Your task to perform on an android device: open sync settings in chrome Image 0: 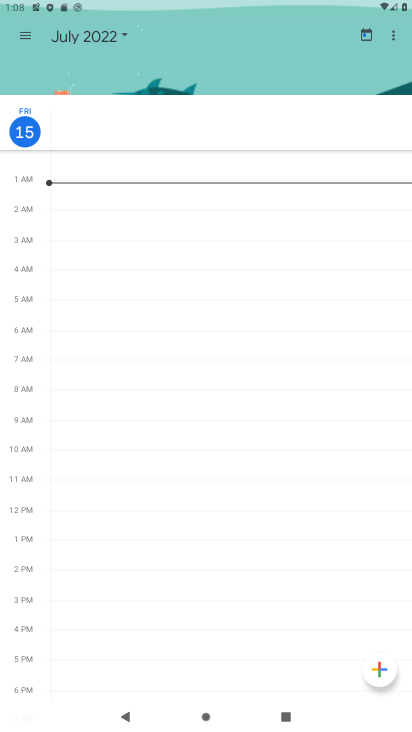
Step 0: press home button
Your task to perform on an android device: open sync settings in chrome Image 1: 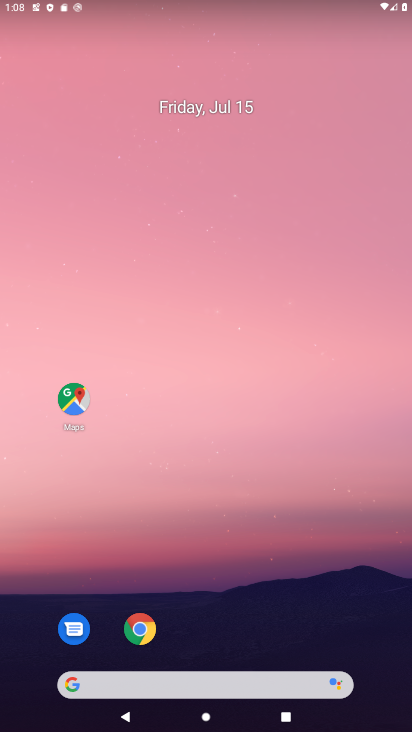
Step 1: drag from (232, 291) to (223, 92)
Your task to perform on an android device: open sync settings in chrome Image 2: 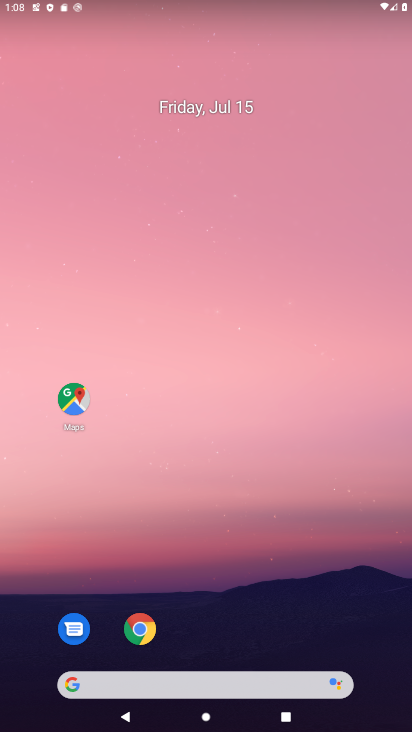
Step 2: drag from (238, 122) to (248, 30)
Your task to perform on an android device: open sync settings in chrome Image 3: 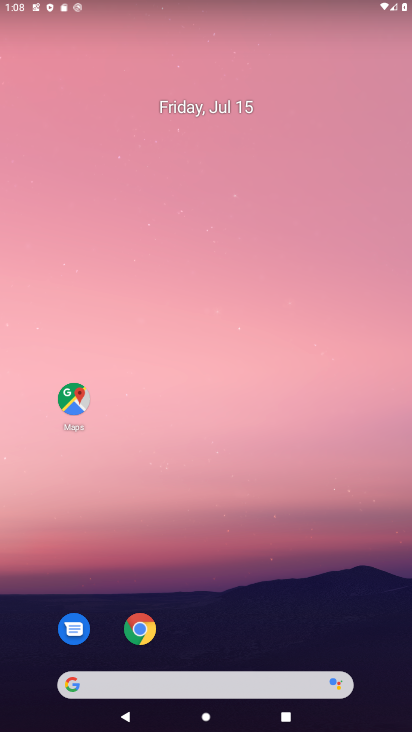
Step 3: drag from (302, 562) to (280, 2)
Your task to perform on an android device: open sync settings in chrome Image 4: 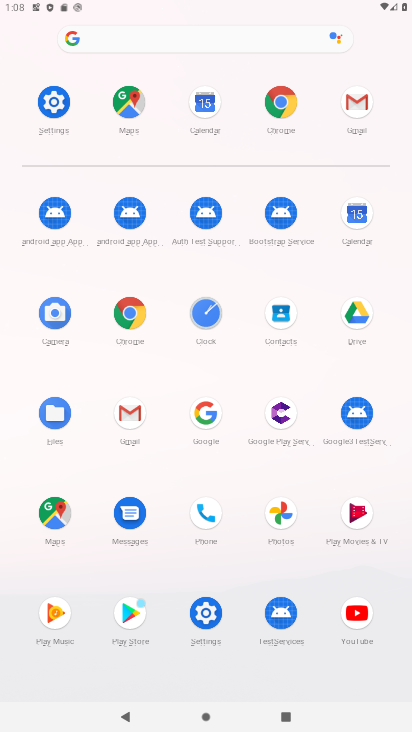
Step 4: click (117, 309)
Your task to perform on an android device: open sync settings in chrome Image 5: 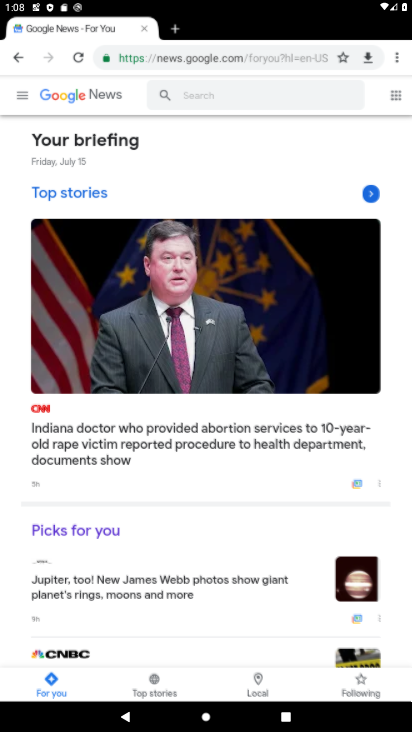
Step 5: drag from (396, 57) to (281, 419)
Your task to perform on an android device: open sync settings in chrome Image 6: 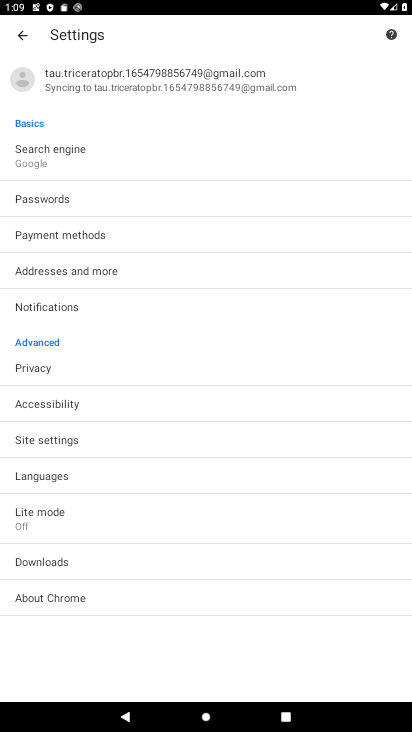
Step 6: click (96, 80)
Your task to perform on an android device: open sync settings in chrome Image 7: 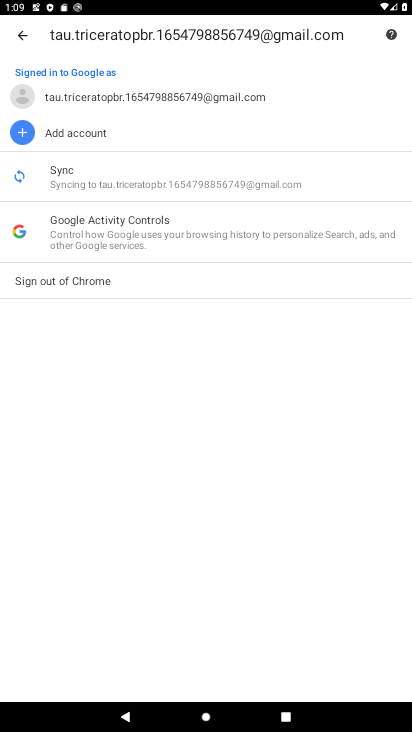
Step 7: click (88, 179)
Your task to perform on an android device: open sync settings in chrome Image 8: 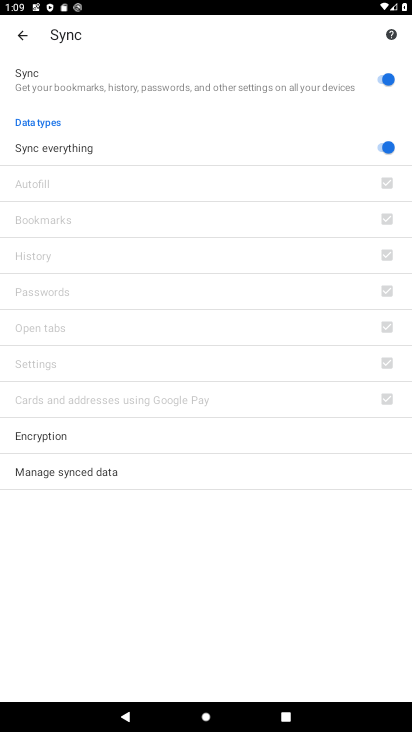
Step 8: task complete